Your task to perform on an android device: turn on improve location accuracy Image 0: 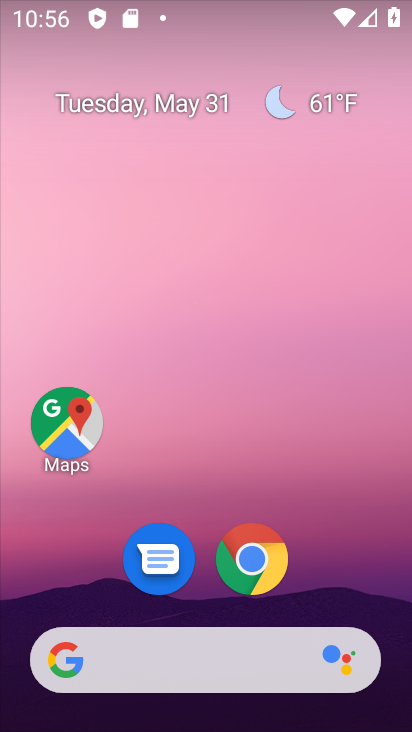
Step 0: drag from (372, 619) to (360, 0)
Your task to perform on an android device: turn on improve location accuracy Image 1: 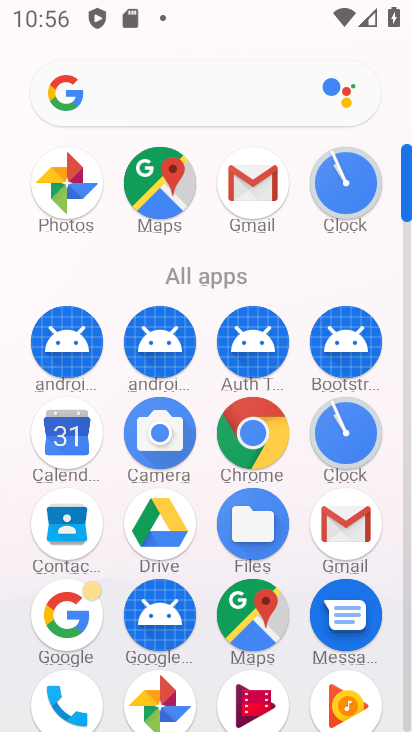
Step 1: drag from (286, 668) to (316, 298)
Your task to perform on an android device: turn on improve location accuracy Image 2: 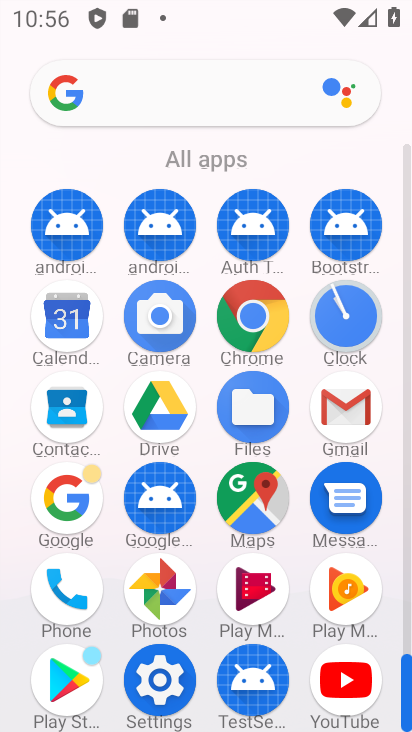
Step 2: click (159, 689)
Your task to perform on an android device: turn on improve location accuracy Image 3: 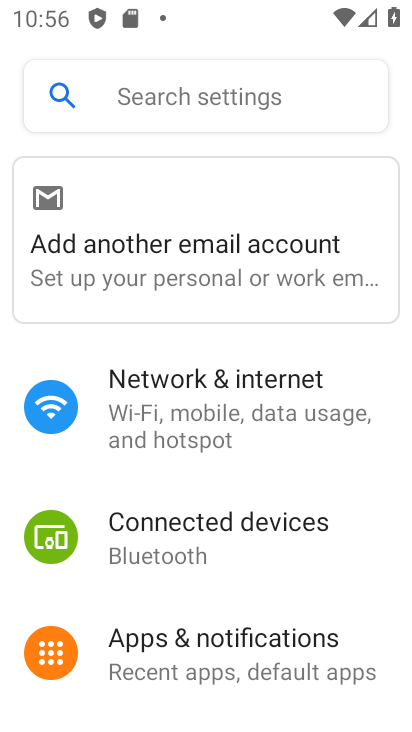
Step 3: drag from (254, 638) to (320, 88)
Your task to perform on an android device: turn on improve location accuracy Image 4: 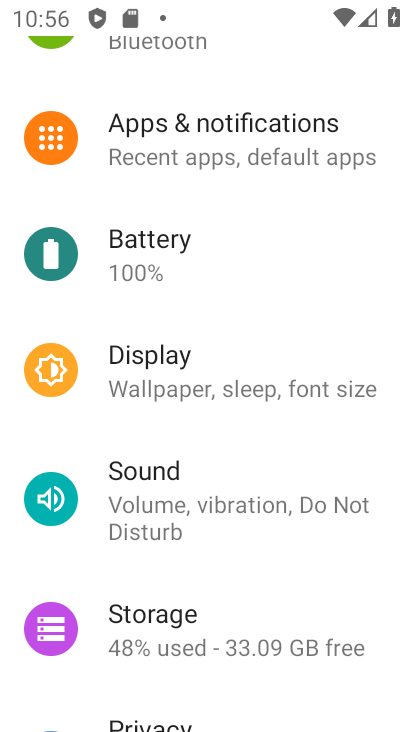
Step 4: click (238, 162)
Your task to perform on an android device: turn on improve location accuracy Image 5: 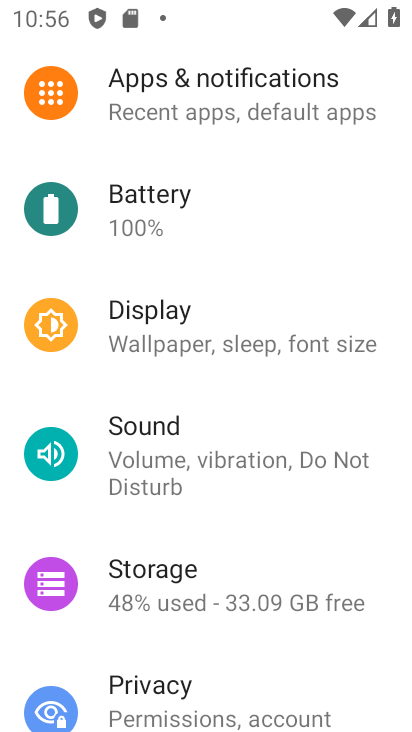
Step 5: drag from (204, 581) to (279, 208)
Your task to perform on an android device: turn on improve location accuracy Image 6: 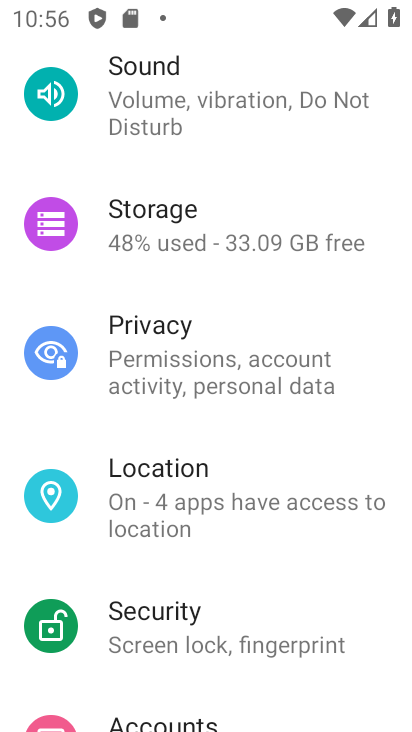
Step 6: click (248, 497)
Your task to perform on an android device: turn on improve location accuracy Image 7: 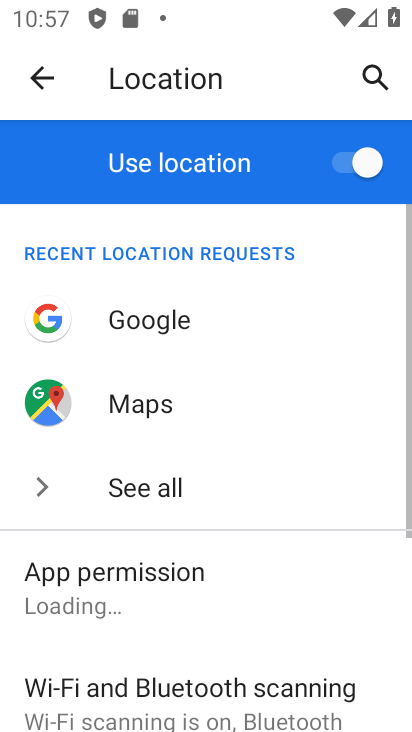
Step 7: drag from (227, 628) to (312, 143)
Your task to perform on an android device: turn on improve location accuracy Image 8: 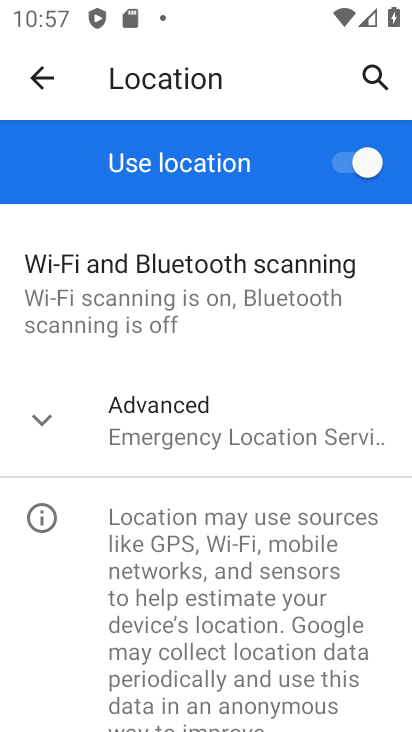
Step 8: click (291, 445)
Your task to perform on an android device: turn on improve location accuracy Image 9: 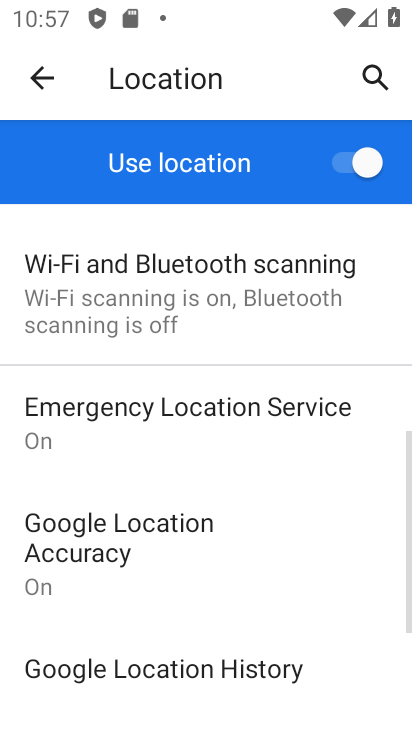
Step 9: click (165, 547)
Your task to perform on an android device: turn on improve location accuracy Image 10: 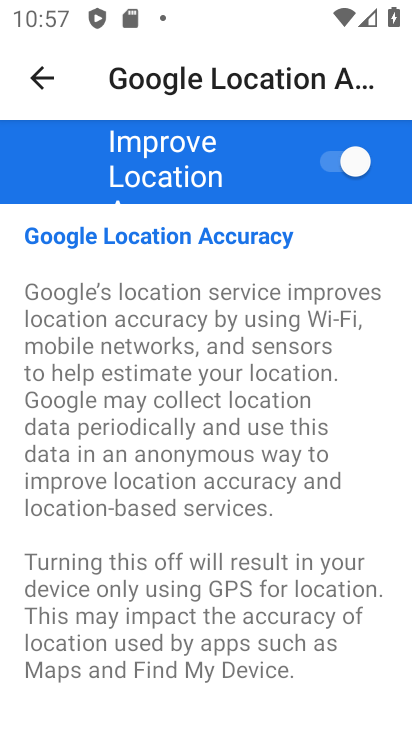
Step 10: task complete